Your task to perform on an android device: find which apps use the phone's location Image 0: 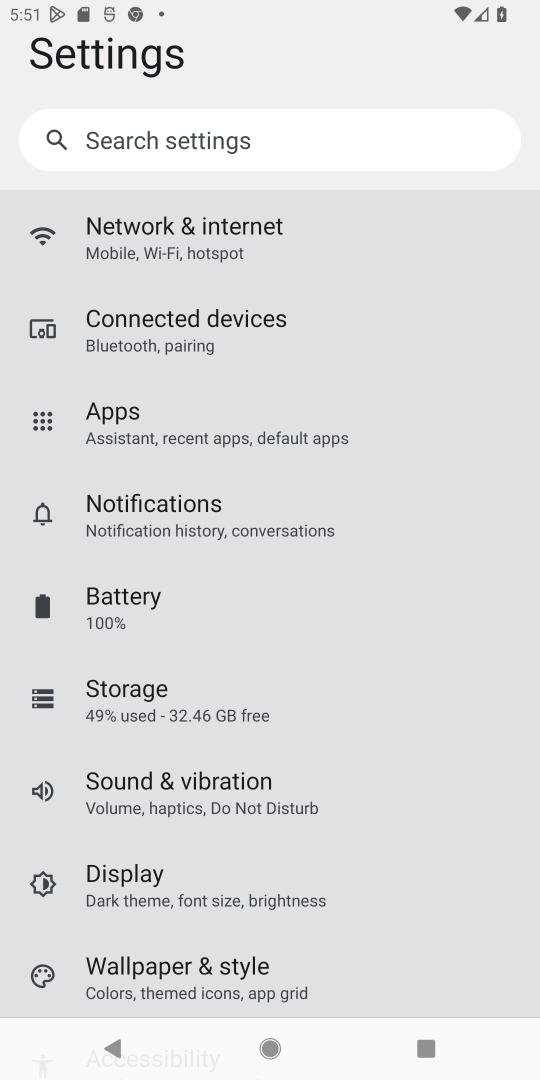
Step 0: drag from (89, 946) to (206, 306)
Your task to perform on an android device: find which apps use the phone's location Image 1: 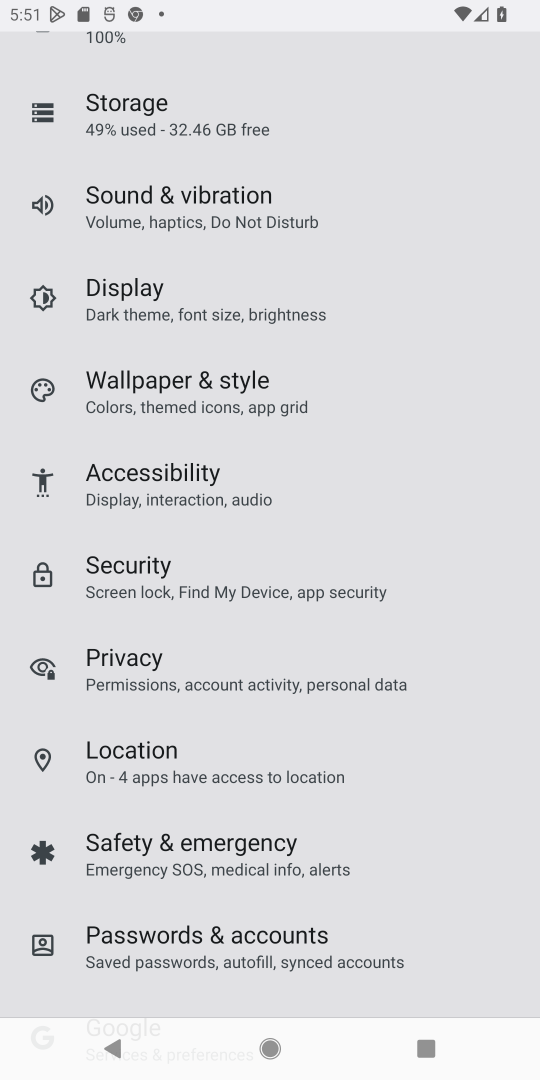
Step 1: click (151, 718)
Your task to perform on an android device: find which apps use the phone's location Image 2: 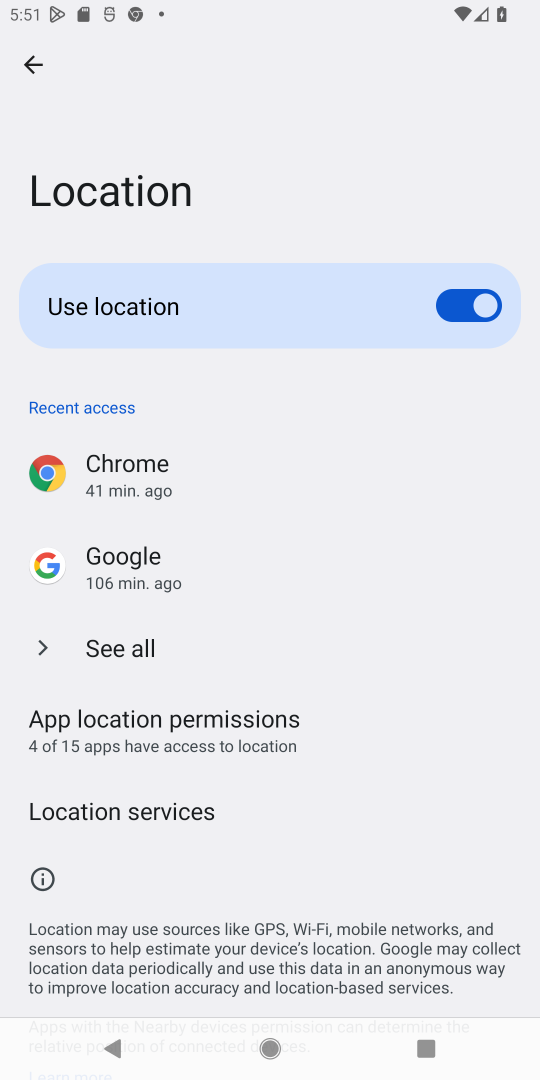
Step 2: task complete